Your task to perform on an android device: stop showing notifications on the lock screen Image 0: 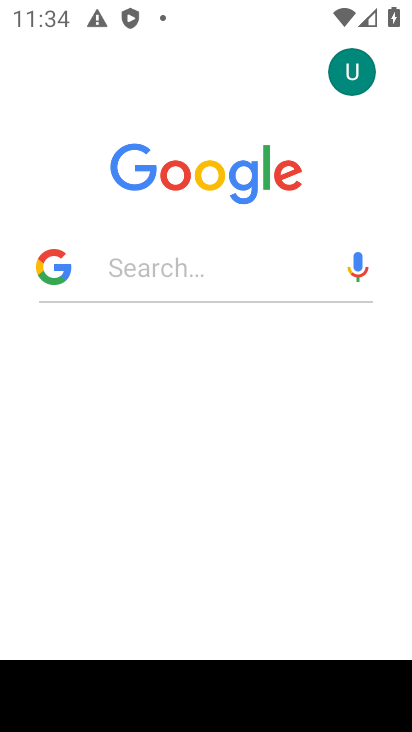
Step 0: press home button
Your task to perform on an android device: stop showing notifications on the lock screen Image 1: 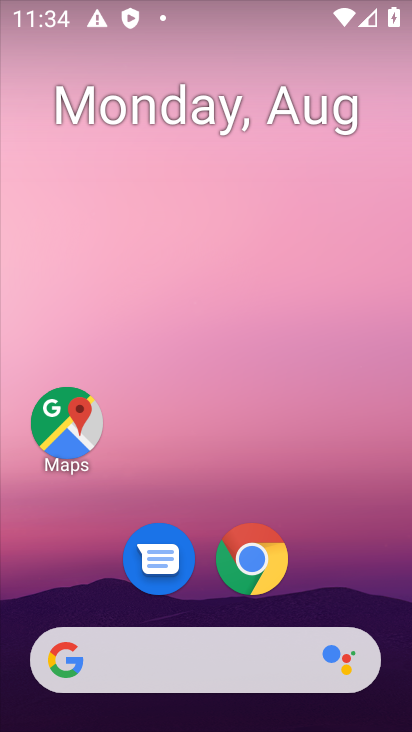
Step 1: drag from (202, 612) to (239, 114)
Your task to perform on an android device: stop showing notifications on the lock screen Image 2: 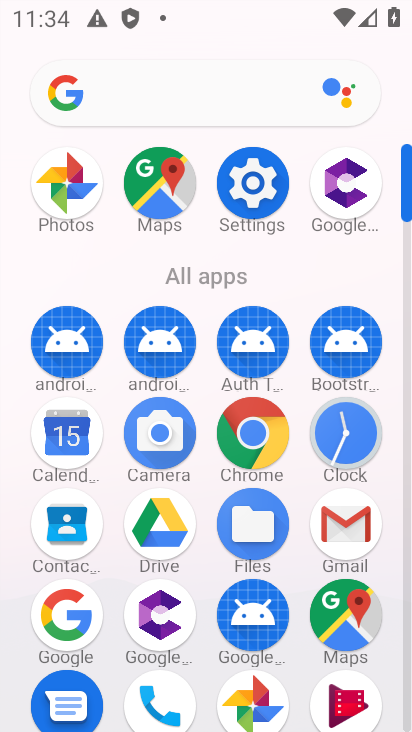
Step 2: click (258, 199)
Your task to perform on an android device: stop showing notifications on the lock screen Image 3: 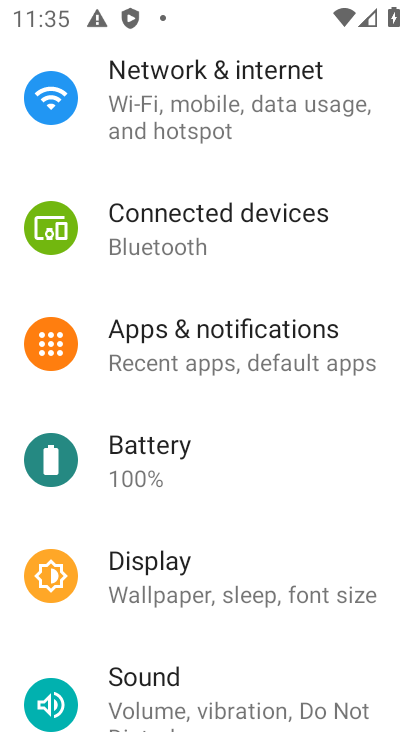
Step 3: click (272, 346)
Your task to perform on an android device: stop showing notifications on the lock screen Image 4: 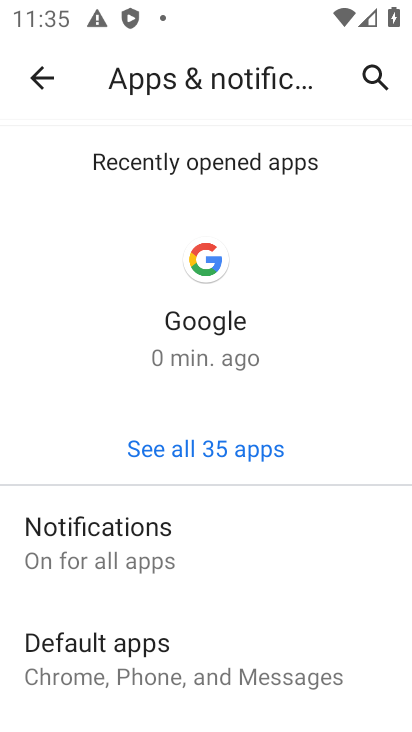
Step 4: drag from (133, 545) to (163, 286)
Your task to perform on an android device: stop showing notifications on the lock screen Image 5: 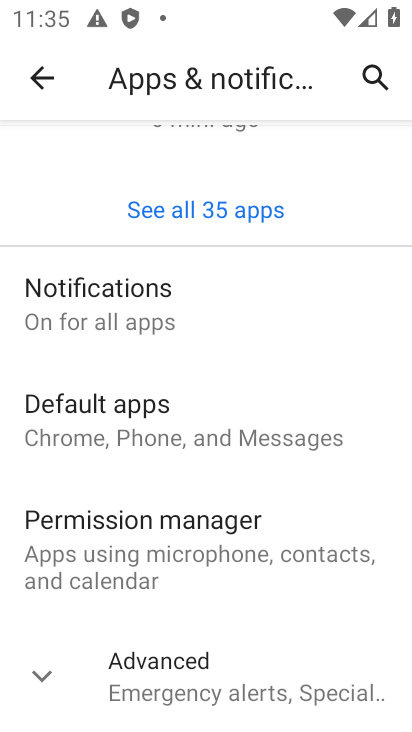
Step 5: click (95, 288)
Your task to perform on an android device: stop showing notifications on the lock screen Image 6: 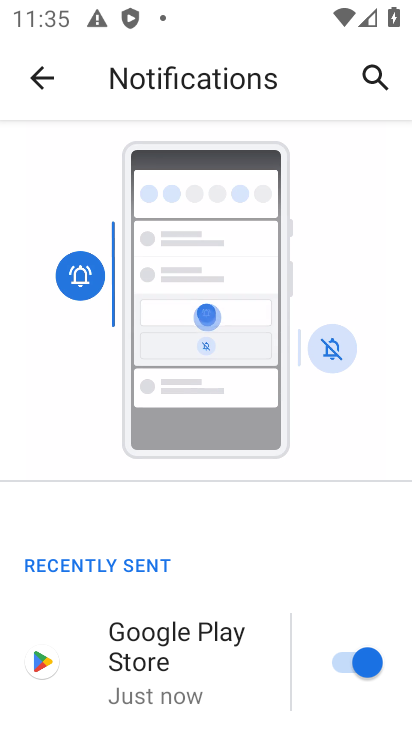
Step 6: drag from (195, 501) to (224, 154)
Your task to perform on an android device: stop showing notifications on the lock screen Image 7: 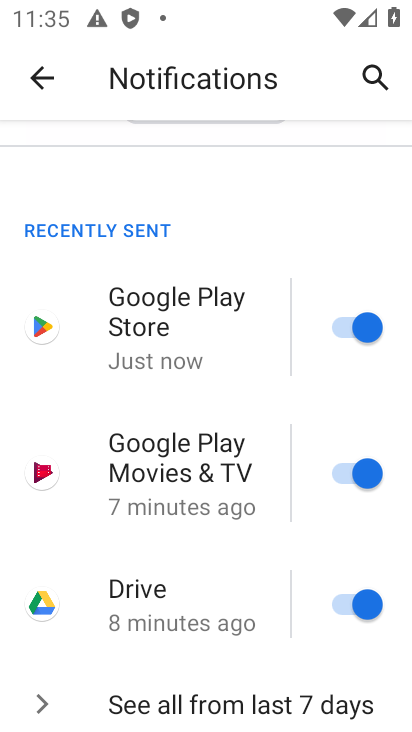
Step 7: drag from (136, 579) to (169, 212)
Your task to perform on an android device: stop showing notifications on the lock screen Image 8: 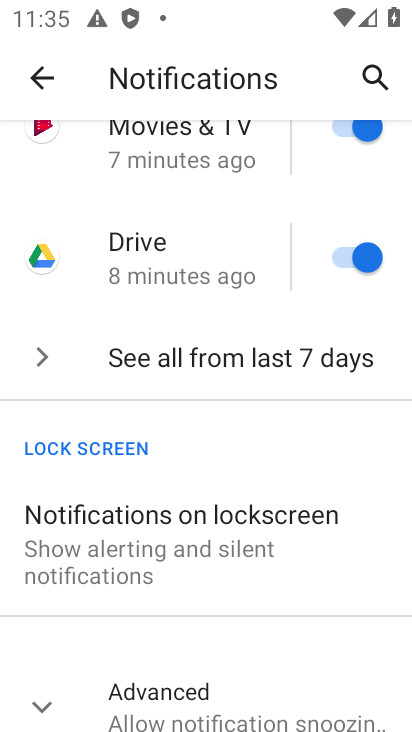
Step 8: drag from (167, 605) to (189, 418)
Your task to perform on an android device: stop showing notifications on the lock screen Image 9: 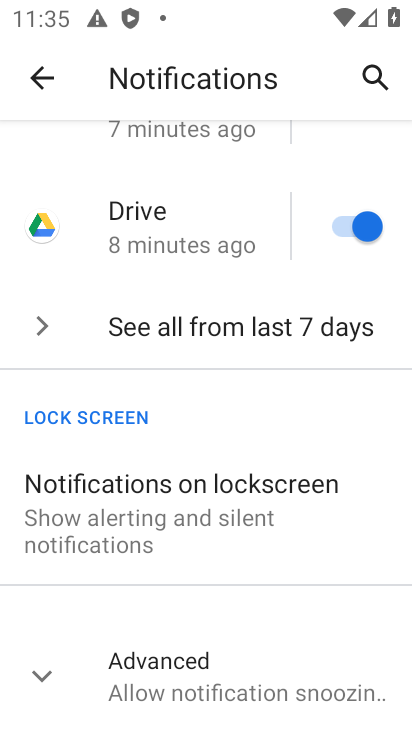
Step 9: click (111, 489)
Your task to perform on an android device: stop showing notifications on the lock screen Image 10: 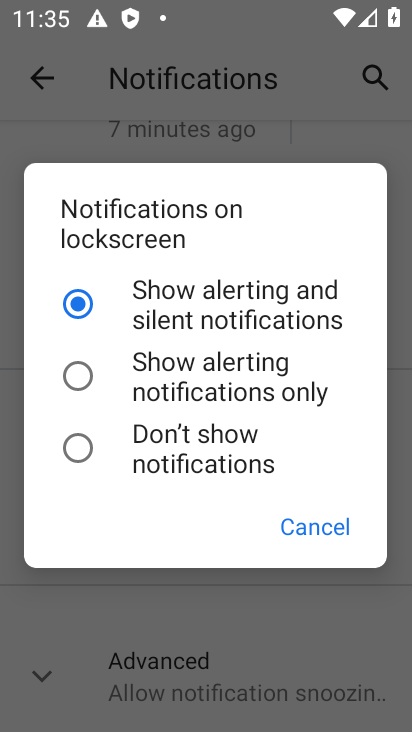
Step 10: click (160, 454)
Your task to perform on an android device: stop showing notifications on the lock screen Image 11: 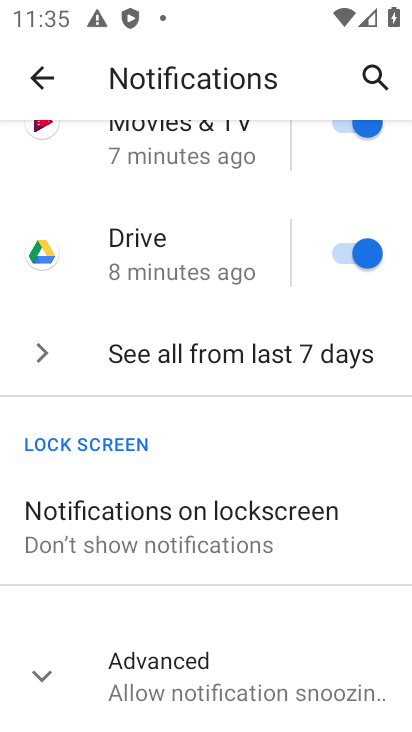
Step 11: task complete